Your task to perform on an android device: see tabs open on other devices in the chrome app Image 0: 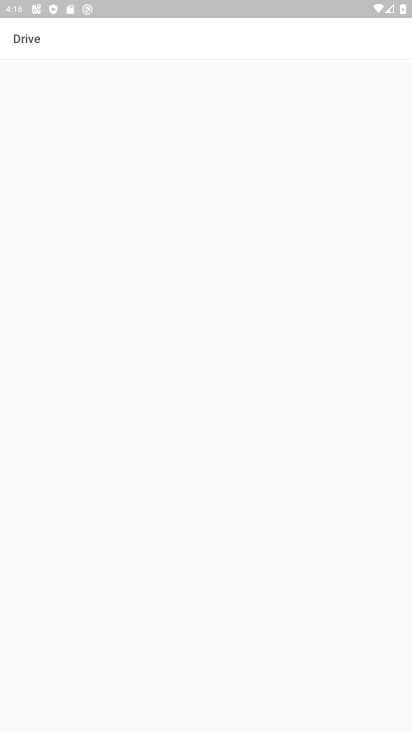
Step 0: press home button
Your task to perform on an android device: see tabs open on other devices in the chrome app Image 1: 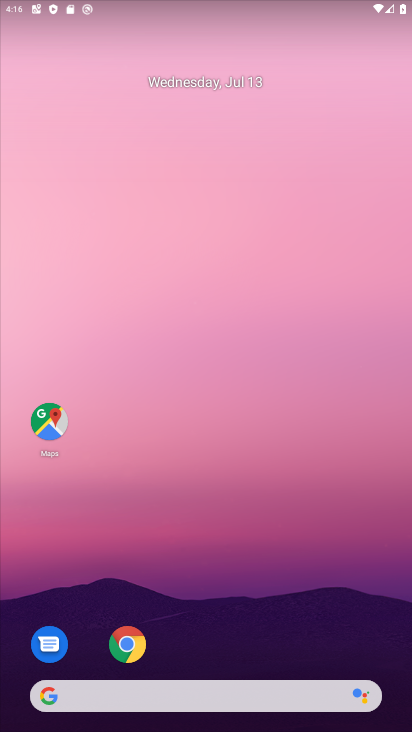
Step 1: drag from (215, 662) to (157, 95)
Your task to perform on an android device: see tabs open on other devices in the chrome app Image 2: 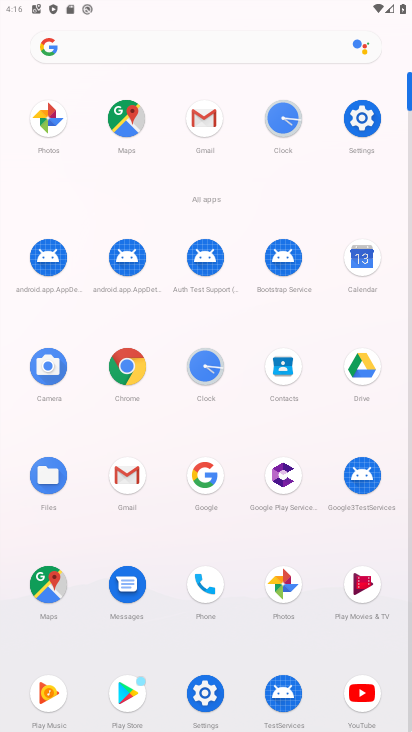
Step 2: click (127, 384)
Your task to perform on an android device: see tabs open on other devices in the chrome app Image 3: 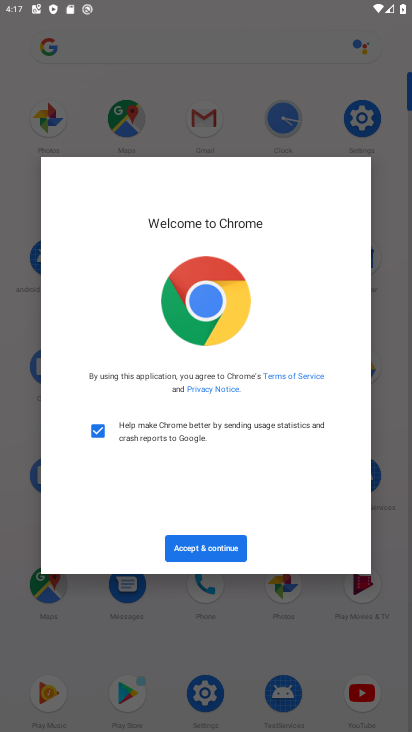
Step 3: click (218, 545)
Your task to perform on an android device: see tabs open on other devices in the chrome app Image 4: 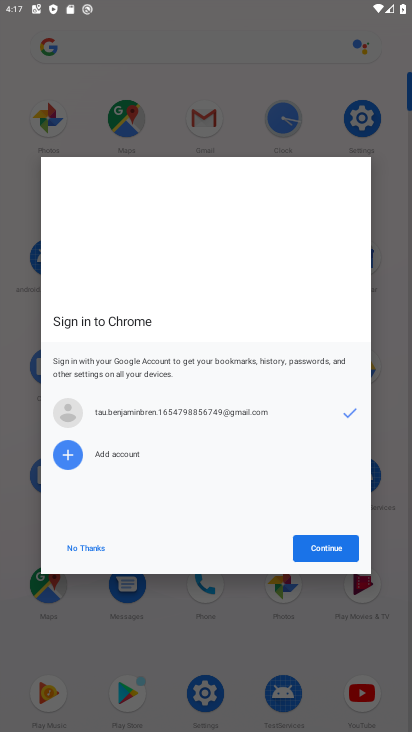
Step 4: click (336, 547)
Your task to perform on an android device: see tabs open on other devices in the chrome app Image 5: 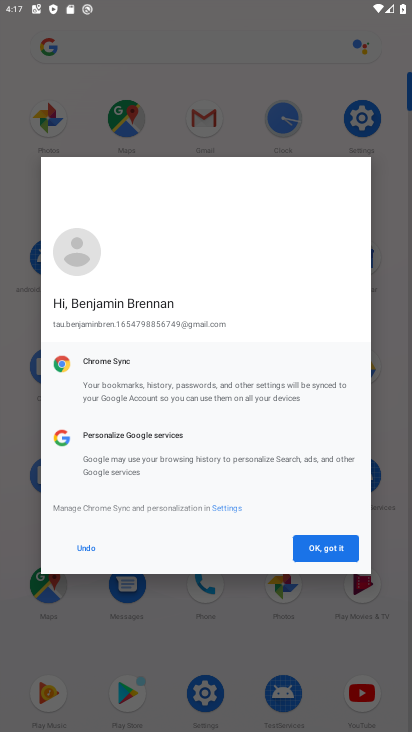
Step 5: click (301, 552)
Your task to perform on an android device: see tabs open on other devices in the chrome app Image 6: 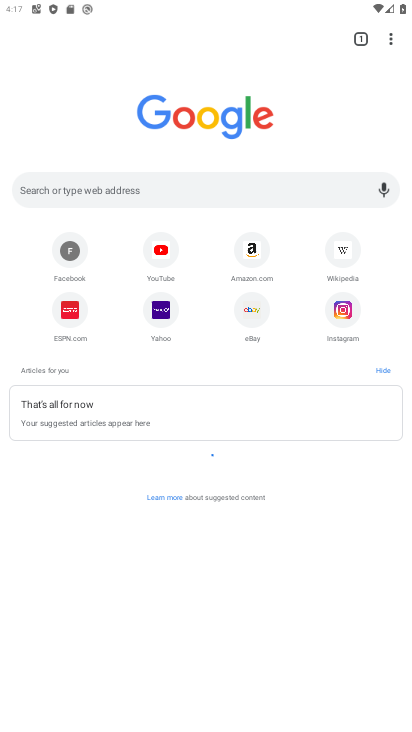
Step 6: click (355, 32)
Your task to perform on an android device: see tabs open on other devices in the chrome app Image 7: 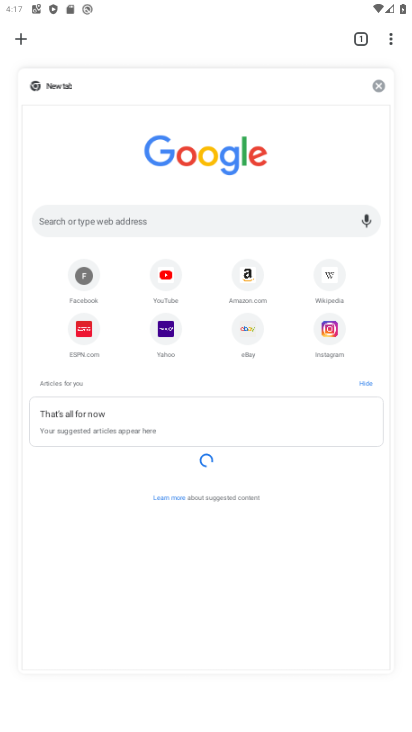
Step 7: task complete